Your task to perform on an android device: check android version Image 0: 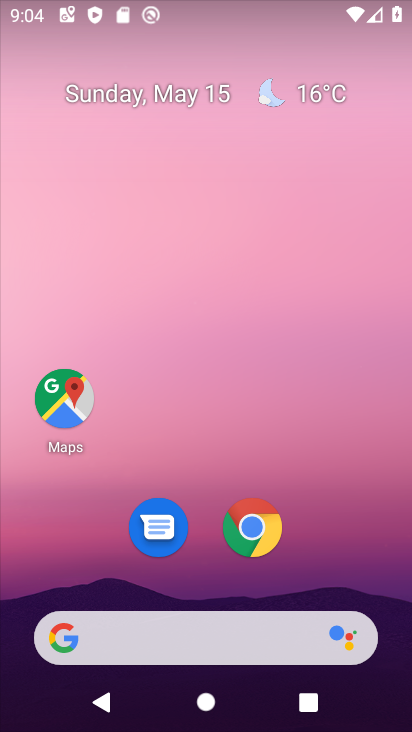
Step 0: drag from (354, 609) to (372, 3)
Your task to perform on an android device: check android version Image 1: 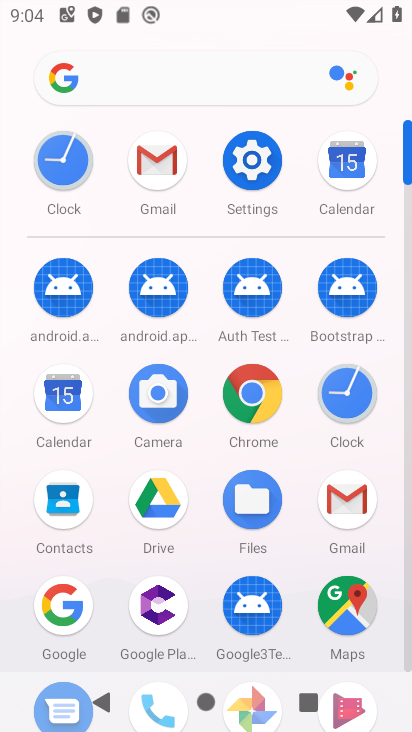
Step 1: click (257, 169)
Your task to perform on an android device: check android version Image 2: 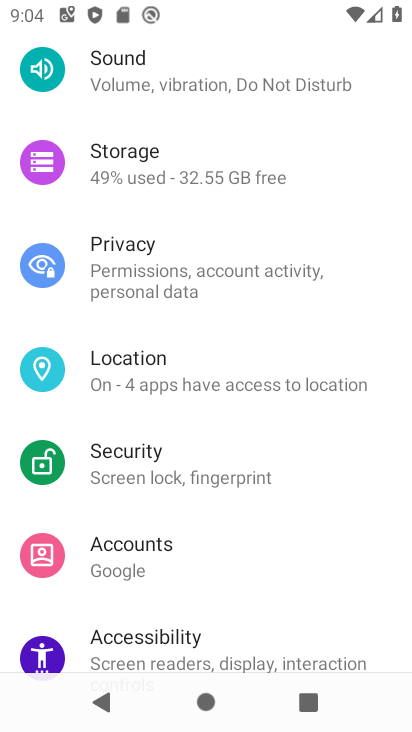
Step 2: drag from (302, 638) to (297, 4)
Your task to perform on an android device: check android version Image 3: 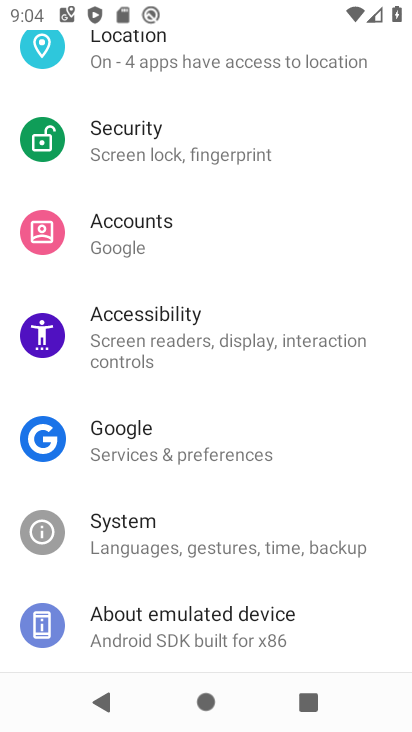
Step 3: drag from (288, 579) to (278, 207)
Your task to perform on an android device: check android version Image 4: 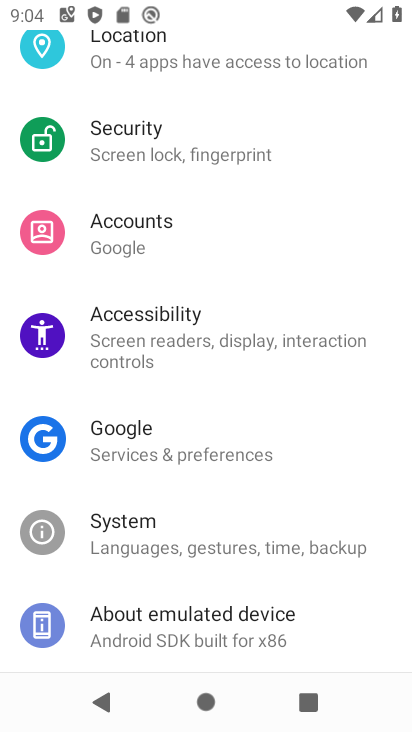
Step 4: click (179, 632)
Your task to perform on an android device: check android version Image 5: 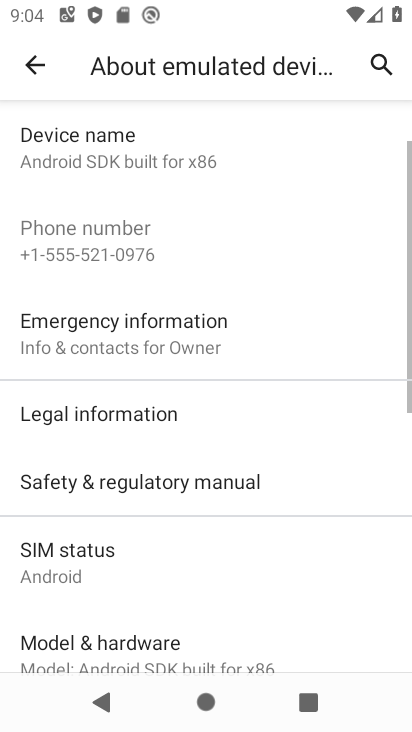
Step 5: drag from (208, 603) to (210, 138)
Your task to perform on an android device: check android version Image 6: 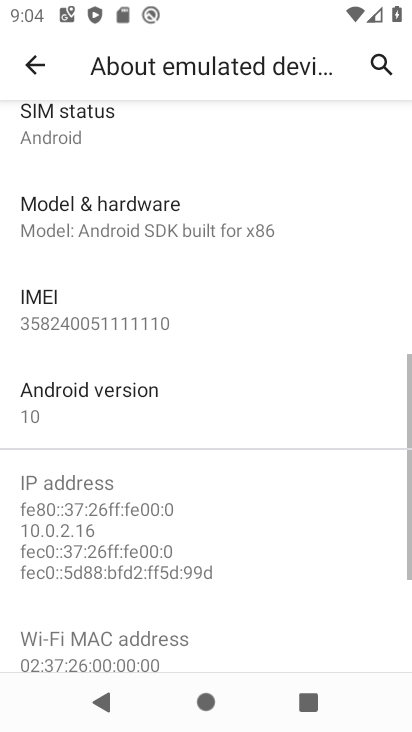
Step 6: click (90, 392)
Your task to perform on an android device: check android version Image 7: 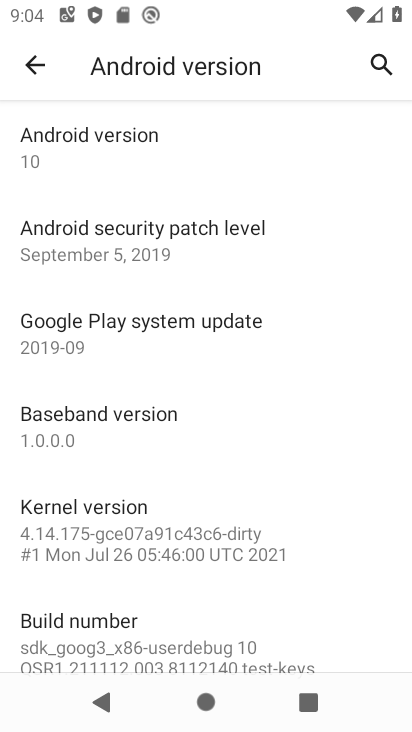
Step 7: task complete